Your task to perform on an android device: Open the web browser Image 0: 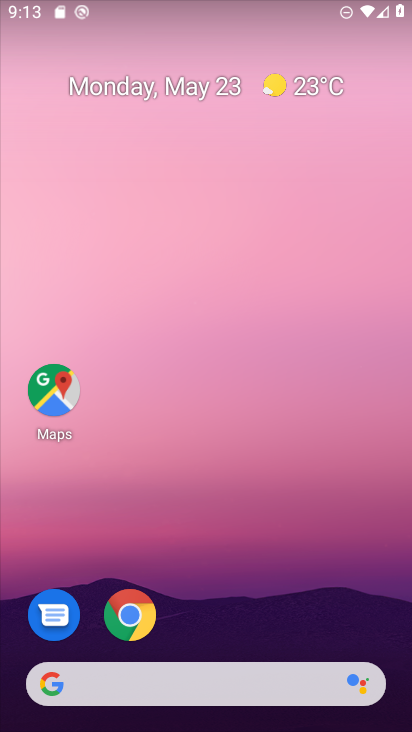
Step 0: click (133, 617)
Your task to perform on an android device: Open the web browser Image 1: 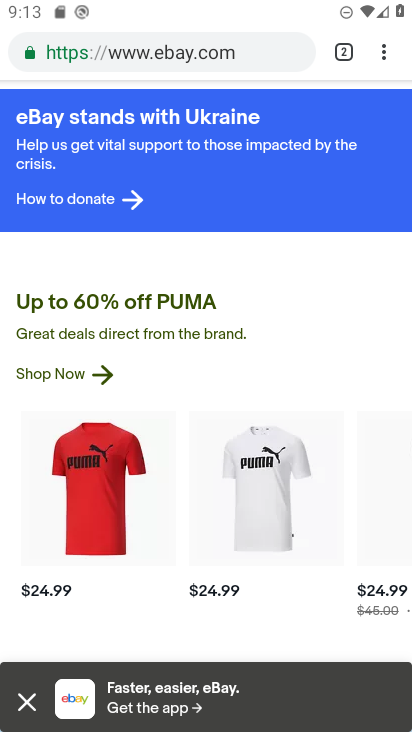
Step 1: task complete